Your task to perform on an android device: What's on my calendar tomorrow? Image 0: 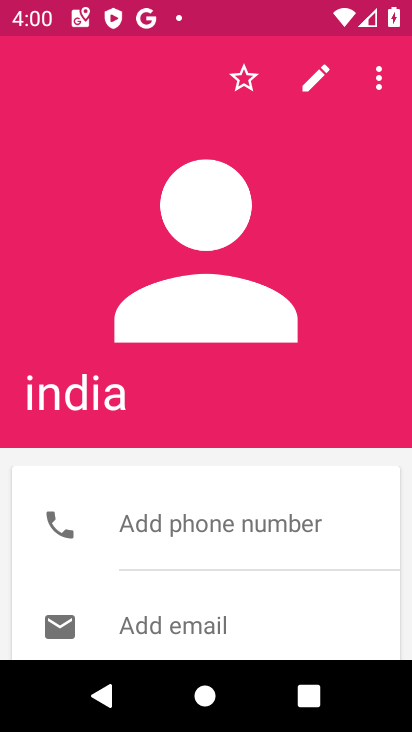
Step 0: press home button
Your task to perform on an android device: What's on my calendar tomorrow? Image 1: 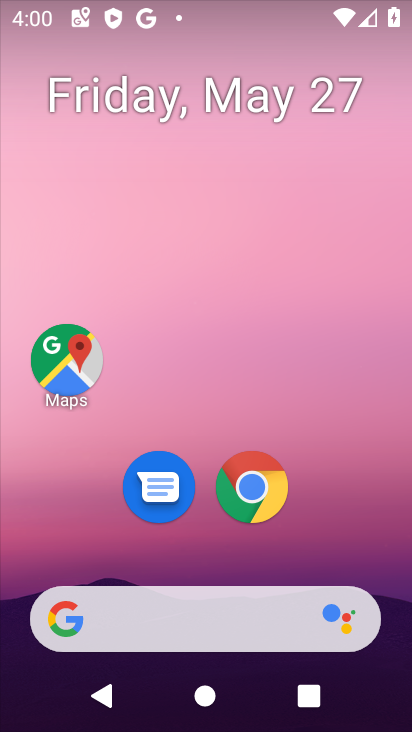
Step 1: drag from (340, 499) to (331, 82)
Your task to perform on an android device: What's on my calendar tomorrow? Image 2: 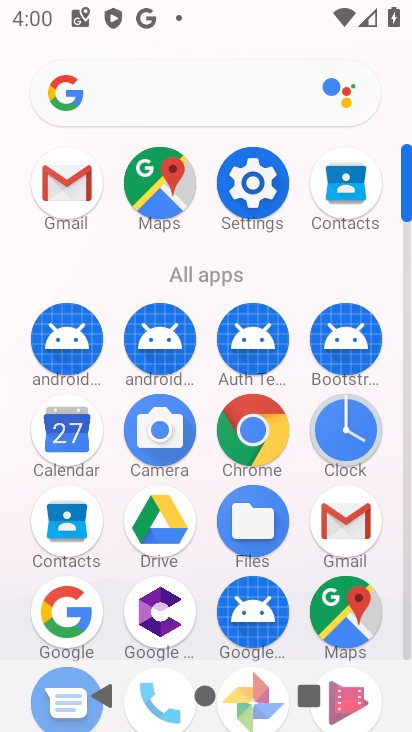
Step 2: click (74, 424)
Your task to perform on an android device: What's on my calendar tomorrow? Image 3: 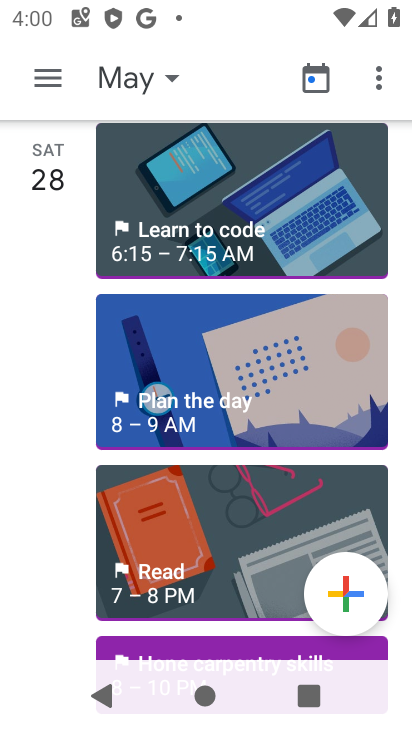
Step 3: task complete